Your task to perform on an android device: delete the emails in spam in the gmail app Image 0: 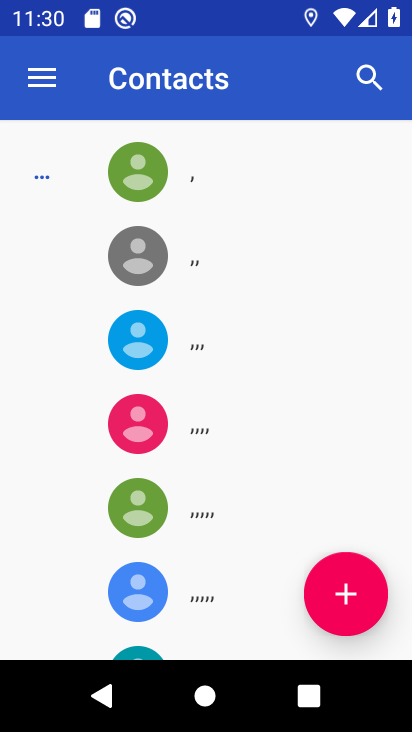
Step 0: press back button
Your task to perform on an android device: delete the emails in spam in the gmail app Image 1: 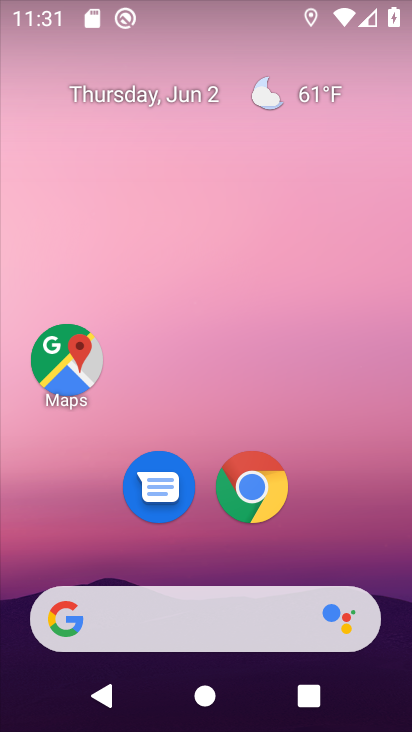
Step 1: drag from (345, 524) to (260, 84)
Your task to perform on an android device: delete the emails in spam in the gmail app Image 2: 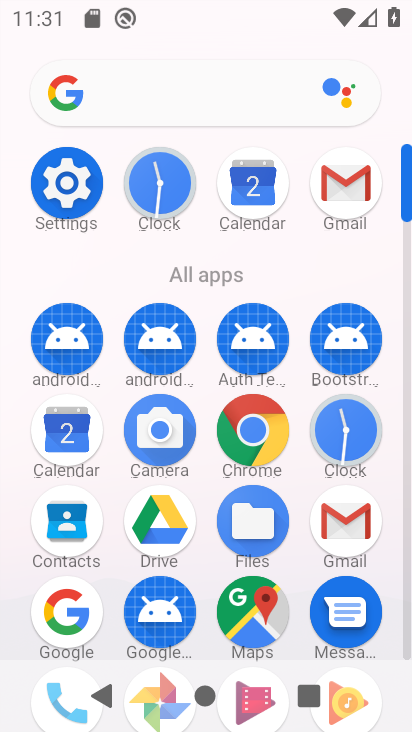
Step 2: click (347, 184)
Your task to perform on an android device: delete the emails in spam in the gmail app Image 3: 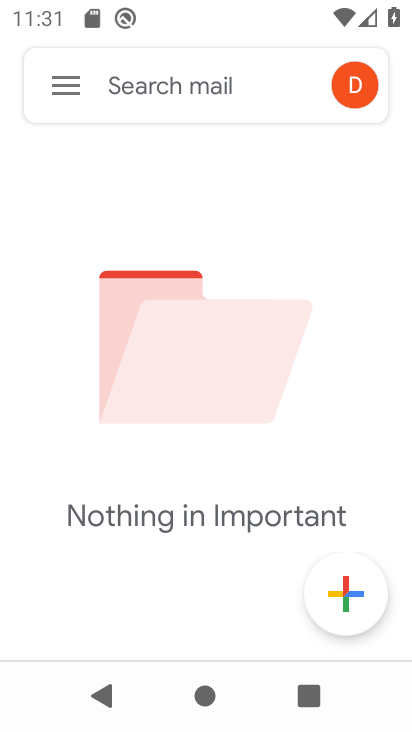
Step 3: click (66, 85)
Your task to perform on an android device: delete the emails in spam in the gmail app Image 4: 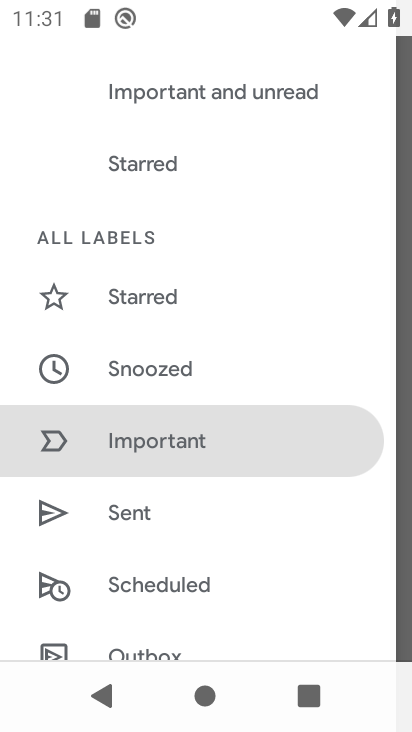
Step 4: drag from (178, 551) to (217, 448)
Your task to perform on an android device: delete the emails in spam in the gmail app Image 5: 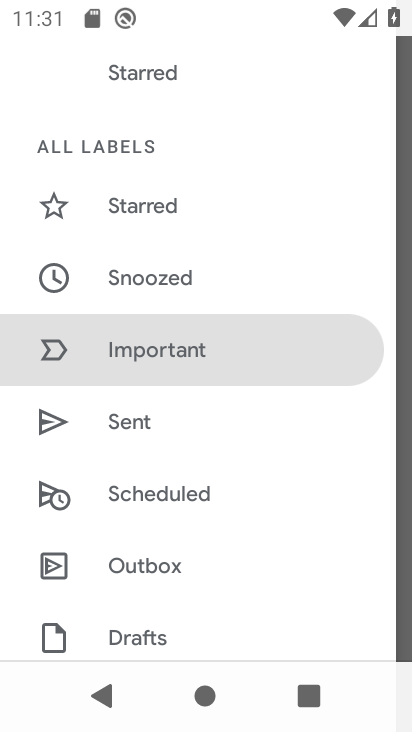
Step 5: drag from (149, 530) to (203, 429)
Your task to perform on an android device: delete the emails in spam in the gmail app Image 6: 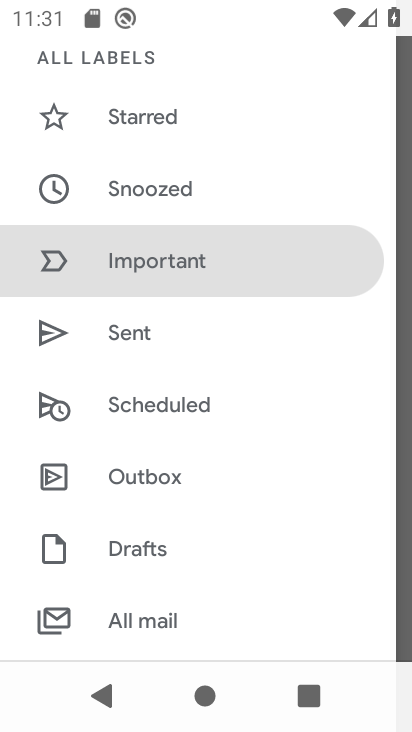
Step 6: drag from (135, 510) to (194, 409)
Your task to perform on an android device: delete the emails in spam in the gmail app Image 7: 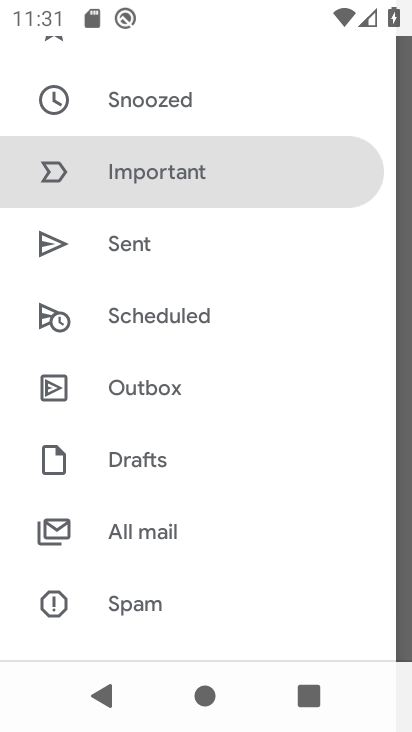
Step 7: drag from (134, 496) to (226, 396)
Your task to perform on an android device: delete the emails in spam in the gmail app Image 8: 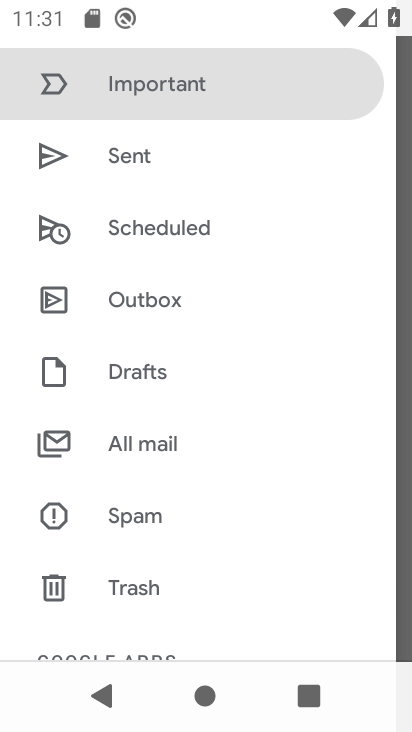
Step 8: drag from (132, 483) to (222, 381)
Your task to perform on an android device: delete the emails in spam in the gmail app Image 9: 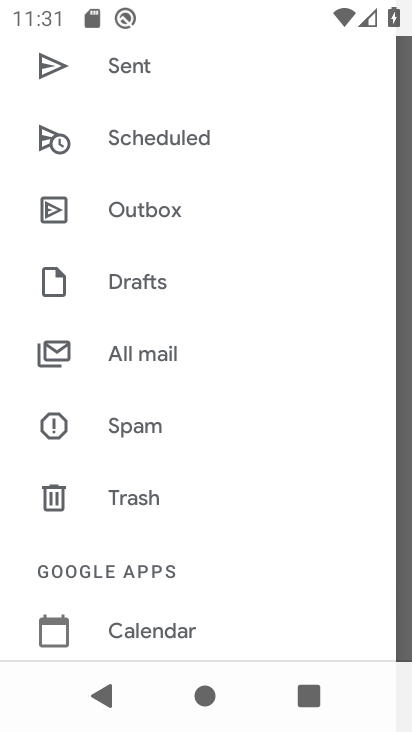
Step 9: click (168, 416)
Your task to perform on an android device: delete the emails in spam in the gmail app Image 10: 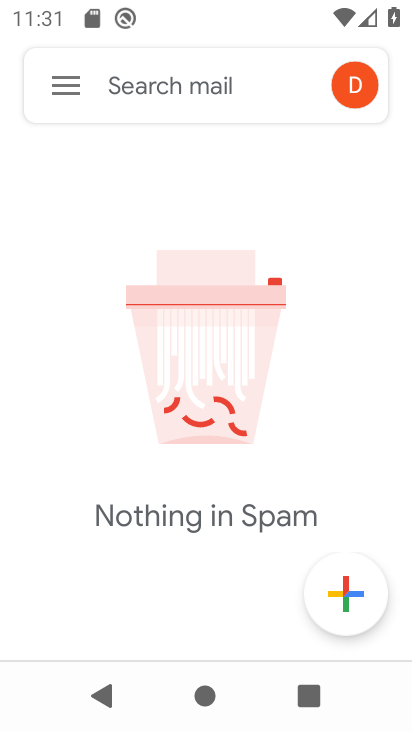
Step 10: task complete